Your task to perform on an android device: move a message to another label in the gmail app Image 0: 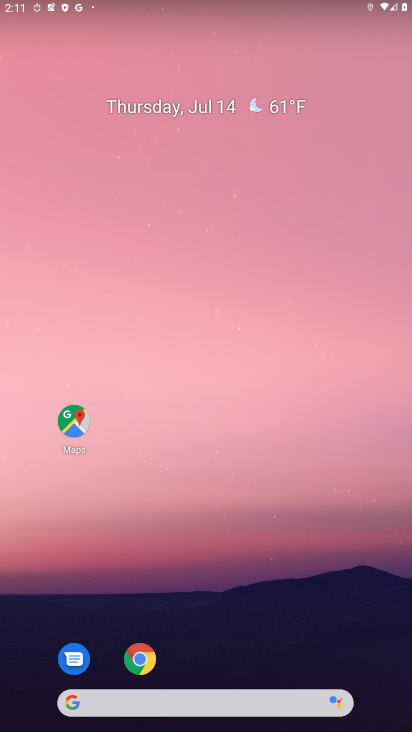
Step 0: drag from (224, 648) to (90, 61)
Your task to perform on an android device: move a message to another label in the gmail app Image 1: 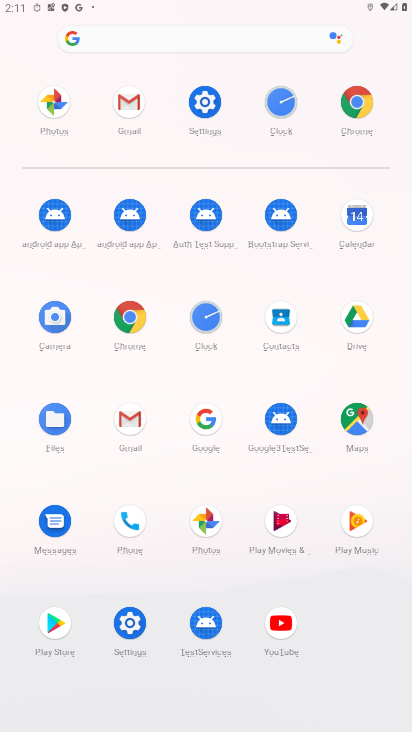
Step 1: click (137, 434)
Your task to perform on an android device: move a message to another label in the gmail app Image 2: 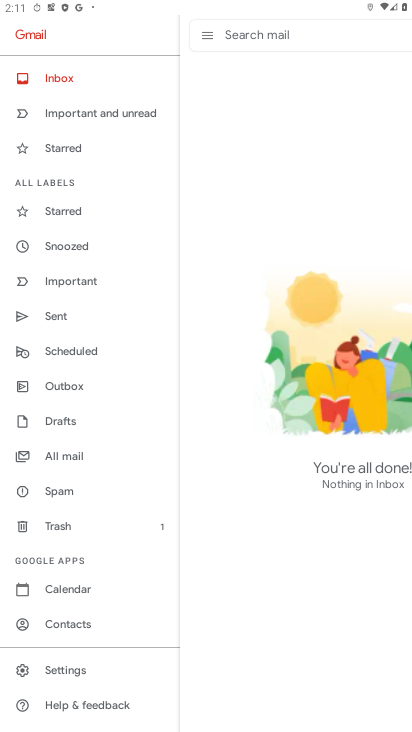
Step 2: click (59, 79)
Your task to perform on an android device: move a message to another label in the gmail app Image 3: 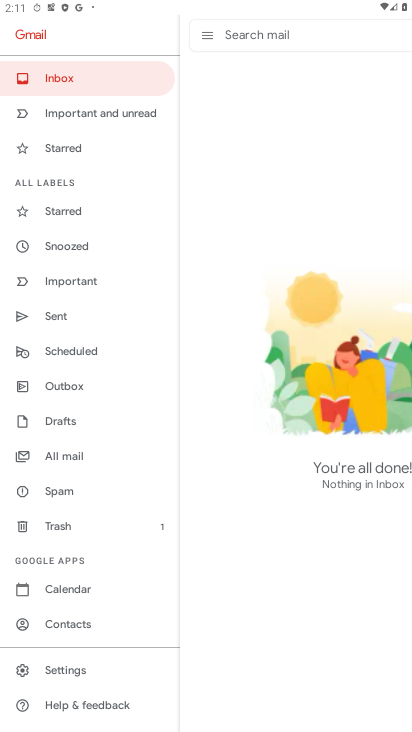
Step 3: task complete